Your task to perform on an android device: add a contact Image 0: 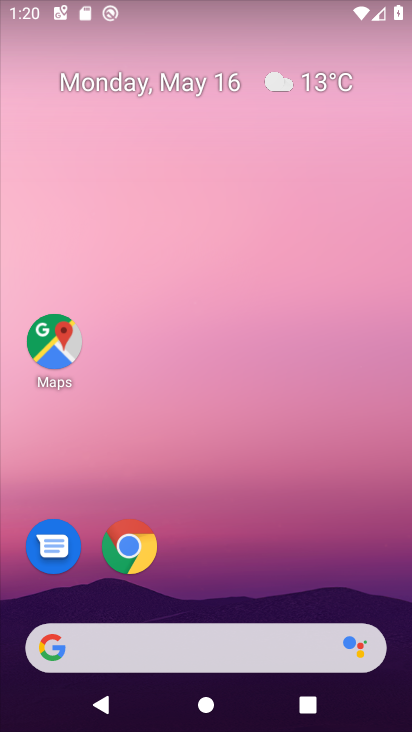
Step 0: drag from (227, 669) to (230, 259)
Your task to perform on an android device: add a contact Image 1: 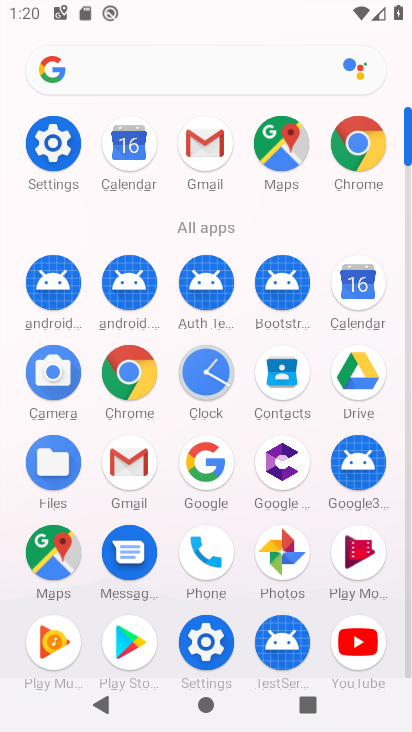
Step 1: click (285, 369)
Your task to perform on an android device: add a contact Image 2: 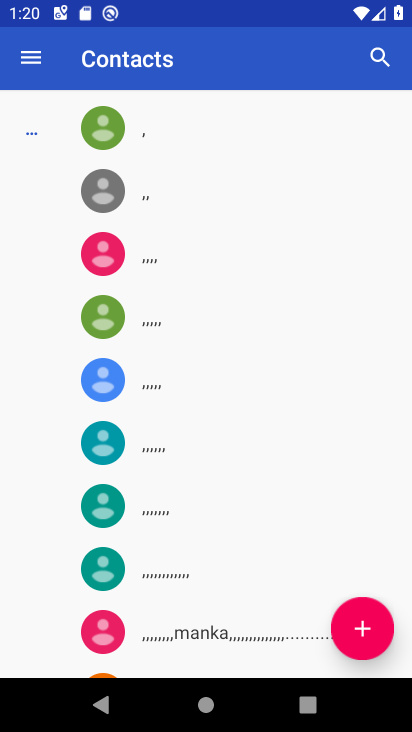
Step 2: click (361, 624)
Your task to perform on an android device: add a contact Image 3: 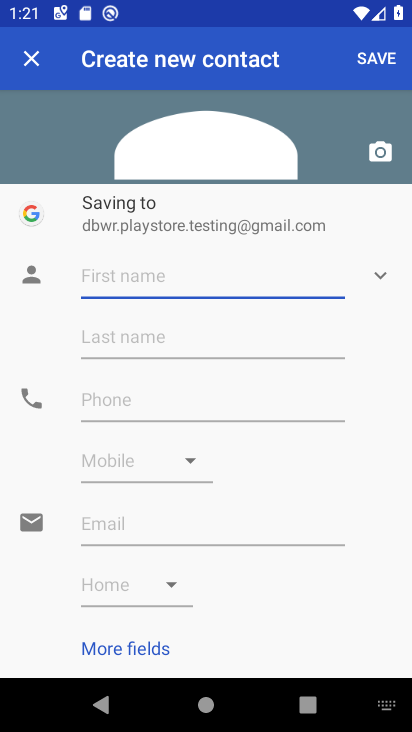
Step 3: type "booki"
Your task to perform on an android device: add a contact Image 4: 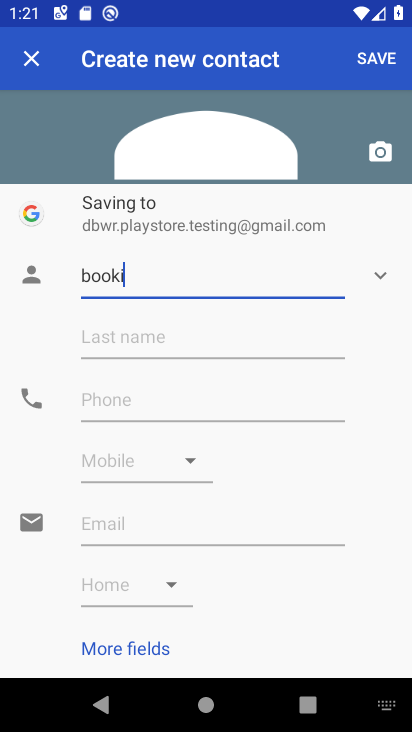
Step 4: click (114, 401)
Your task to perform on an android device: add a contact Image 5: 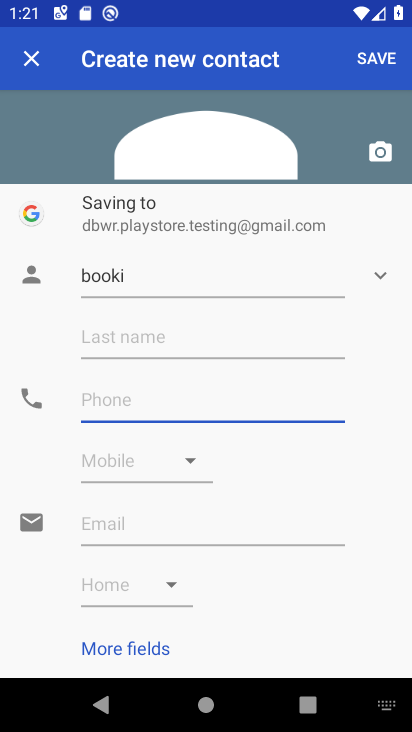
Step 5: type "8987654"
Your task to perform on an android device: add a contact Image 6: 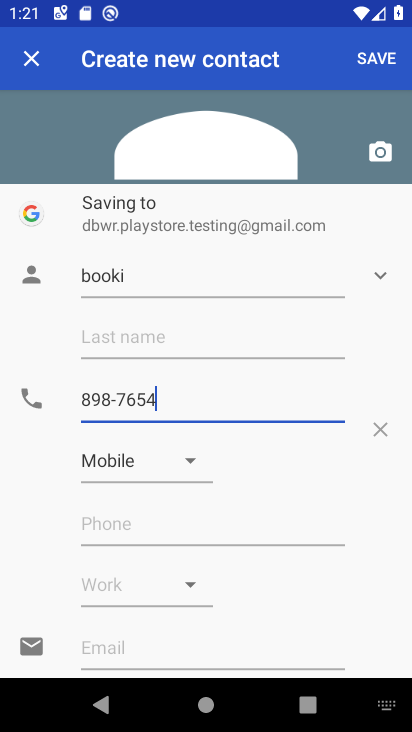
Step 6: click (381, 46)
Your task to perform on an android device: add a contact Image 7: 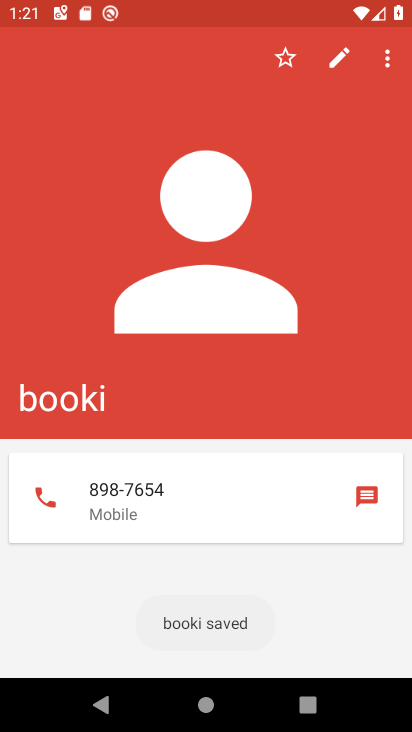
Step 7: task complete